Your task to perform on an android device: What is the news today? Image 0: 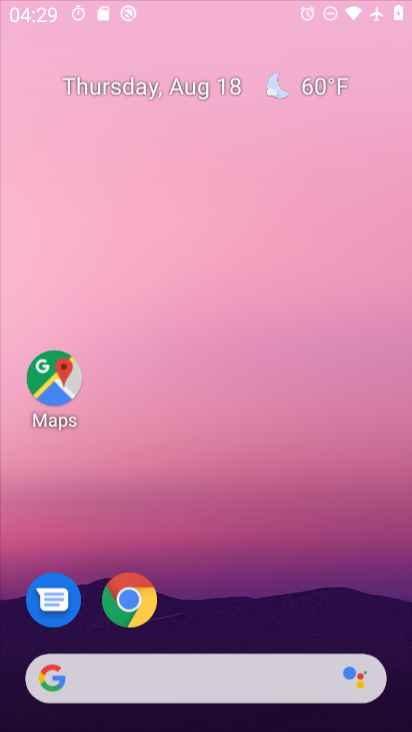
Step 0: press home button
Your task to perform on an android device: What is the news today? Image 1: 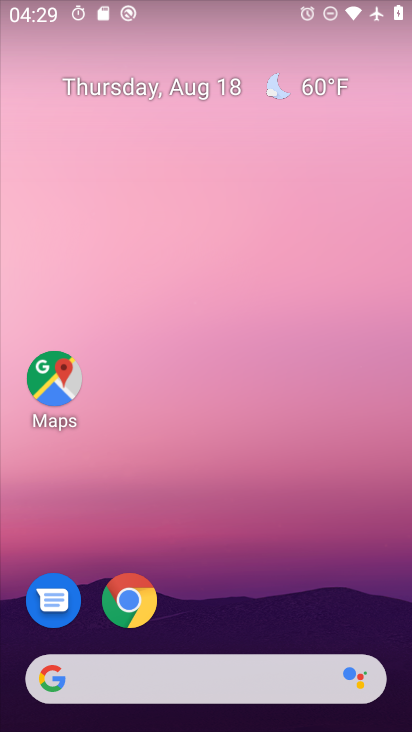
Step 1: click (35, 690)
Your task to perform on an android device: What is the news today? Image 2: 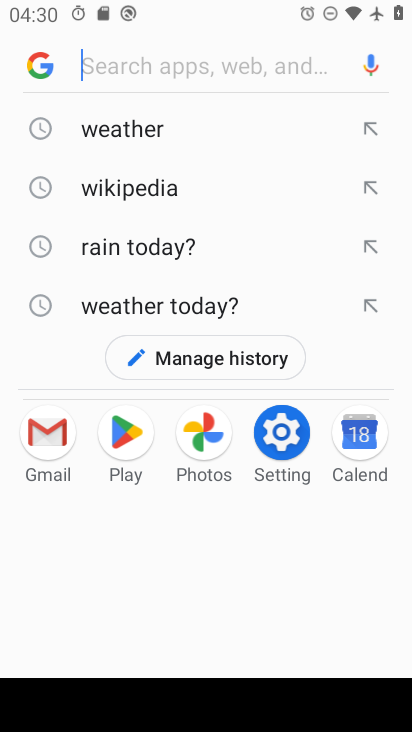
Step 2: type "news today?"
Your task to perform on an android device: What is the news today? Image 3: 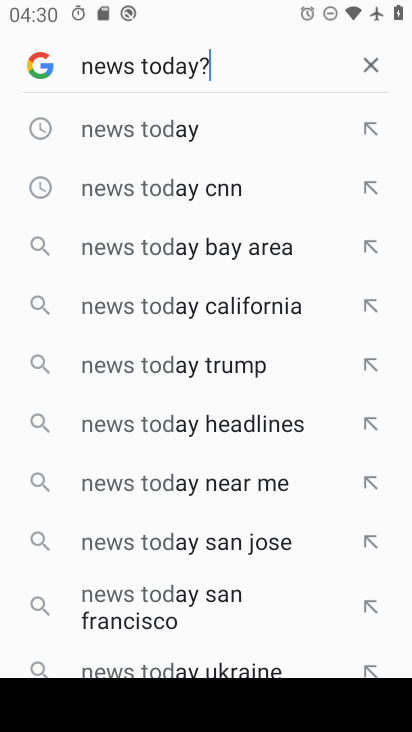
Step 3: press enter
Your task to perform on an android device: What is the news today? Image 4: 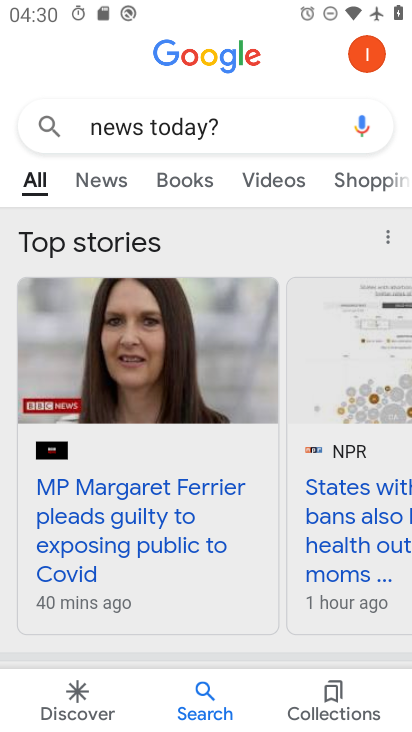
Step 4: task complete